Your task to perform on an android device: change text size in settings app Image 0: 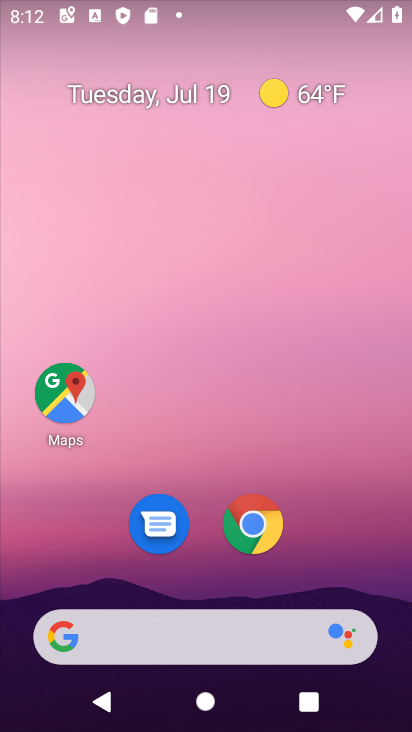
Step 0: drag from (325, 547) to (317, 86)
Your task to perform on an android device: change text size in settings app Image 1: 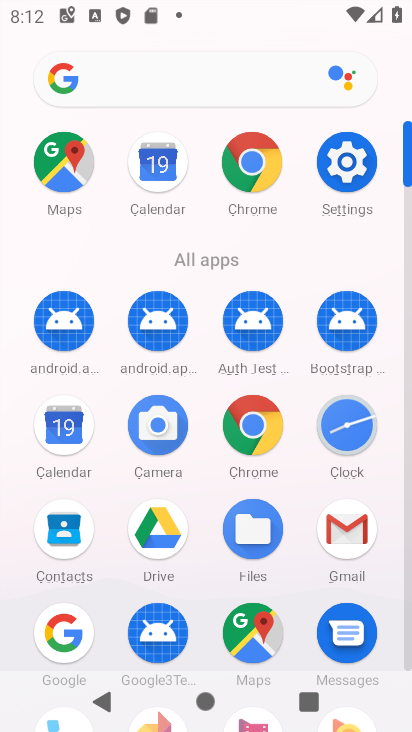
Step 1: click (350, 167)
Your task to perform on an android device: change text size in settings app Image 2: 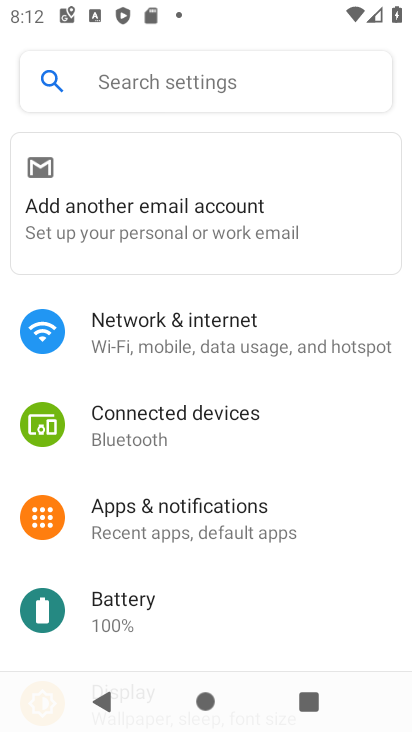
Step 2: drag from (223, 586) to (237, 165)
Your task to perform on an android device: change text size in settings app Image 3: 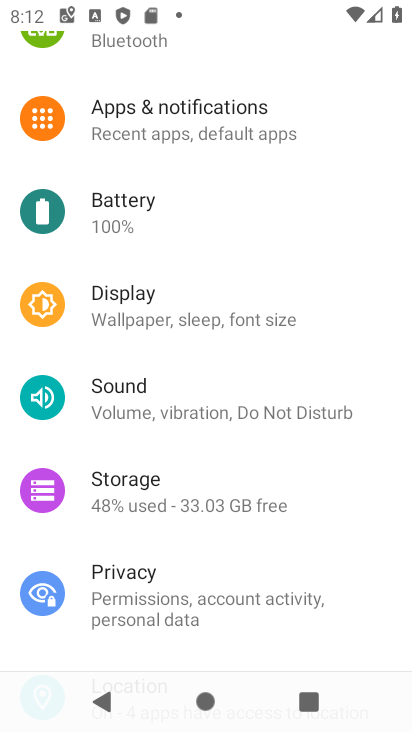
Step 3: click (197, 301)
Your task to perform on an android device: change text size in settings app Image 4: 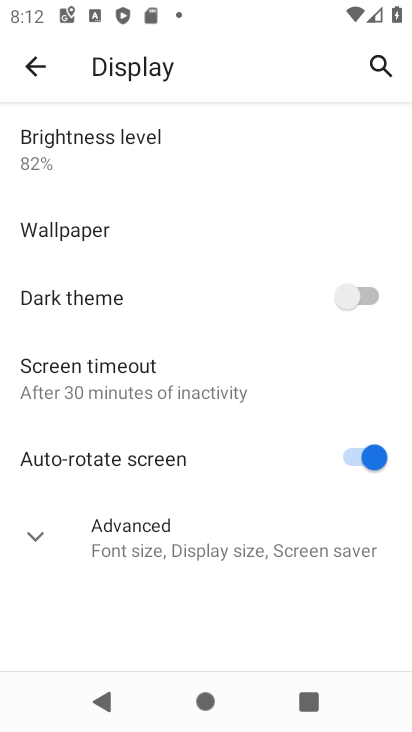
Step 4: click (32, 528)
Your task to perform on an android device: change text size in settings app Image 5: 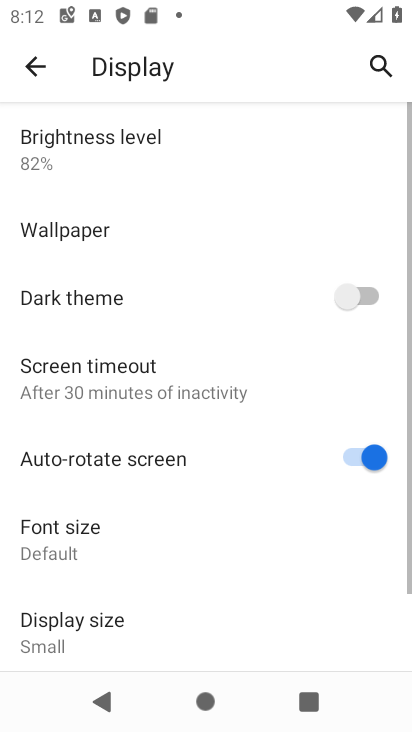
Step 5: drag from (163, 430) to (173, 208)
Your task to perform on an android device: change text size in settings app Image 6: 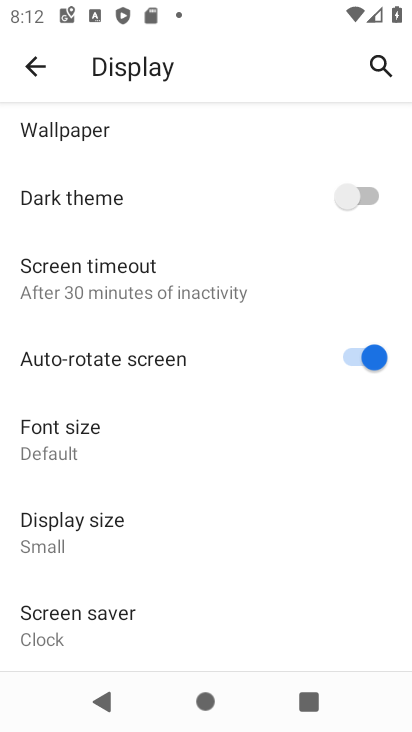
Step 6: click (69, 432)
Your task to perform on an android device: change text size in settings app Image 7: 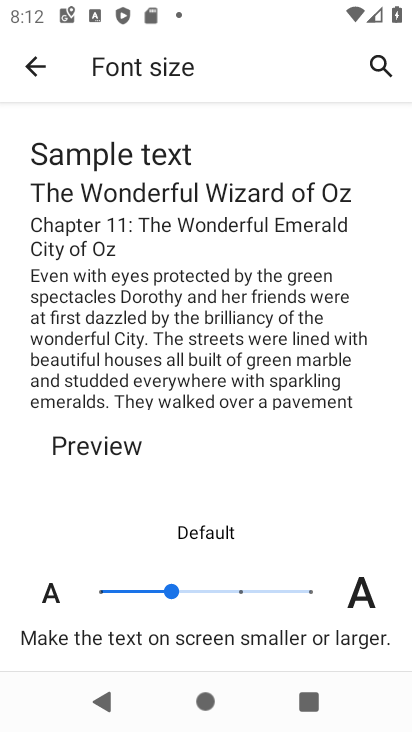
Step 7: click (103, 588)
Your task to perform on an android device: change text size in settings app Image 8: 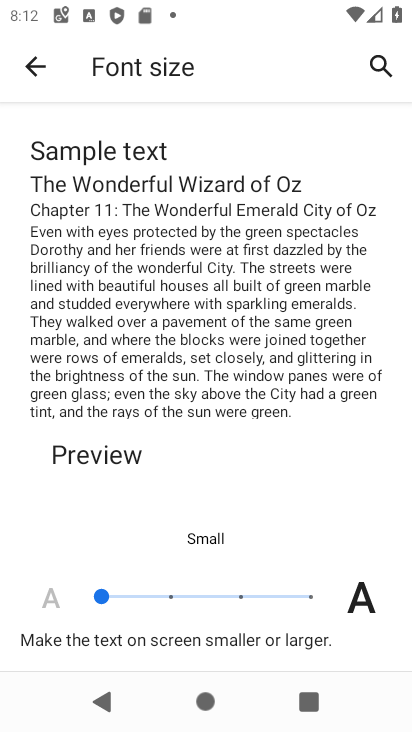
Step 8: click (39, 65)
Your task to perform on an android device: change text size in settings app Image 9: 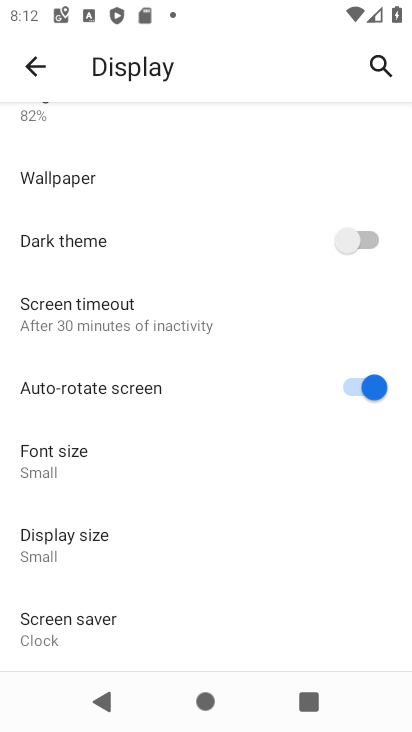
Step 9: task complete